Your task to perform on an android device: toggle sleep mode Image 0: 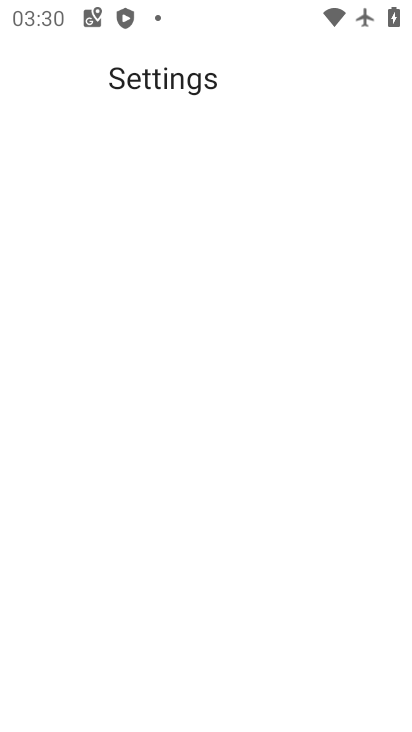
Step 0: drag from (197, 568) to (197, 73)
Your task to perform on an android device: toggle sleep mode Image 1: 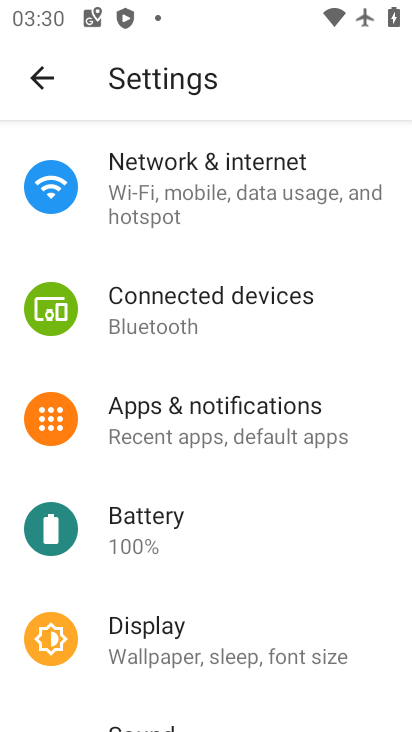
Step 1: press home button
Your task to perform on an android device: toggle sleep mode Image 2: 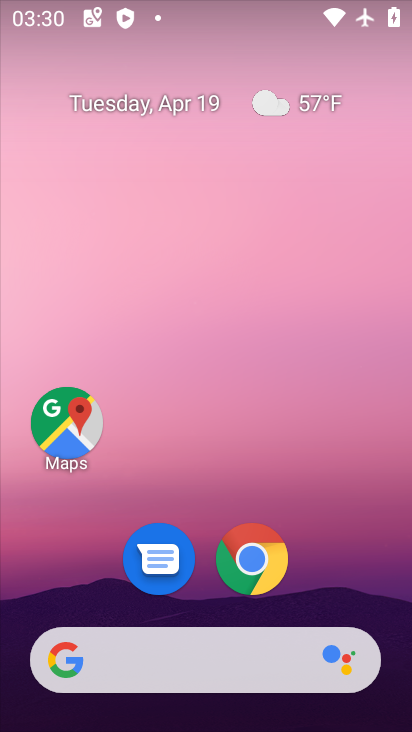
Step 2: drag from (213, 598) to (209, 55)
Your task to perform on an android device: toggle sleep mode Image 3: 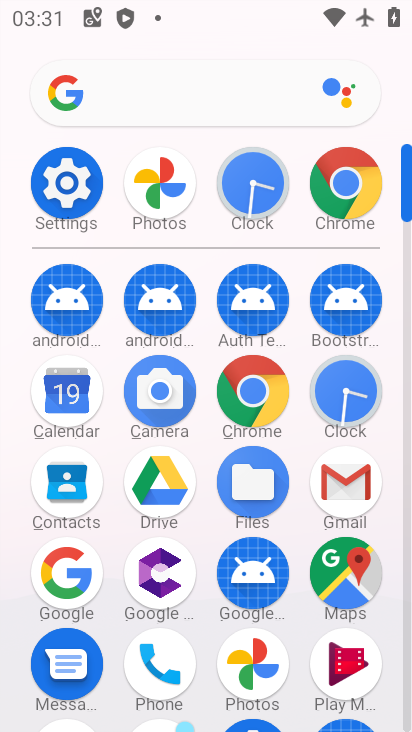
Step 3: click (66, 179)
Your task to perform on an android device: toggle sleep mode Image 4: 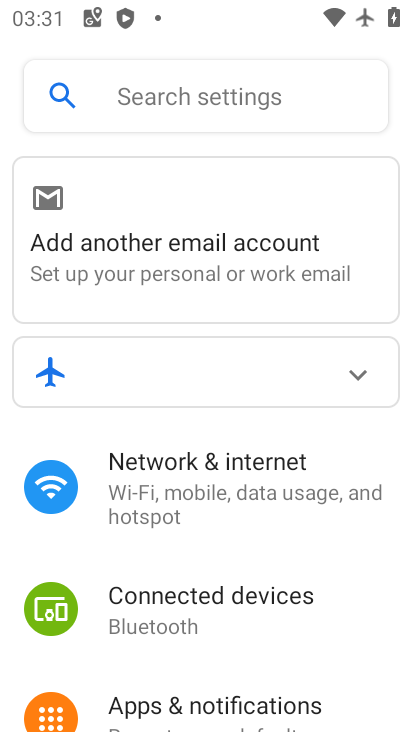
Step 4: drag from (186, 651) to (220, 127)
Your task to perform on an android device: toggle sleep mode Image 5: 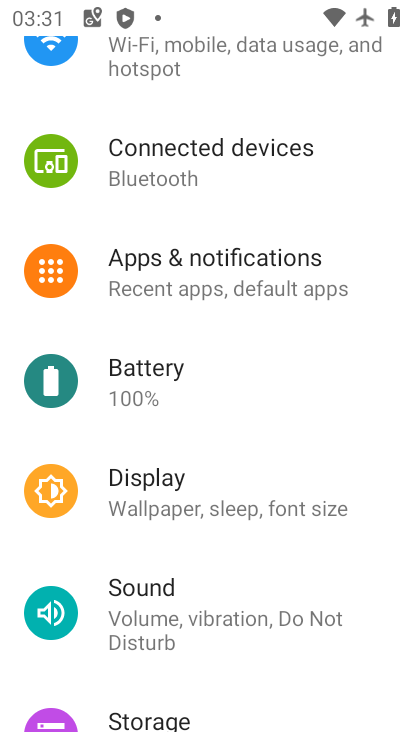
Step 5: click (192, 486)
Your task to perform on an android device: toggle sleep mode Image 6: 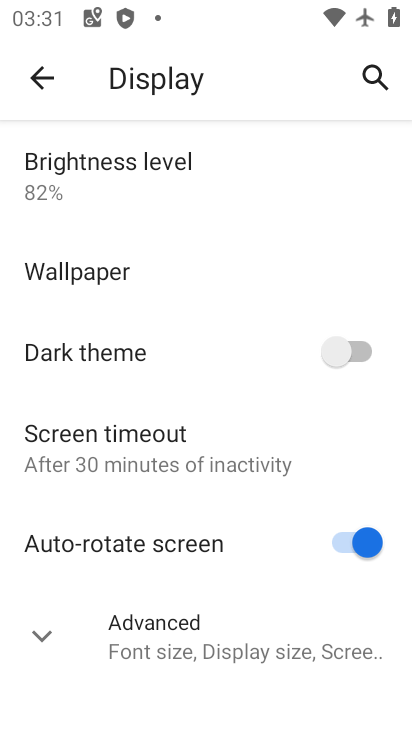
Step 6: click (37, 625)
Your task to perform on an android device: toggle sleep mode Image 7: 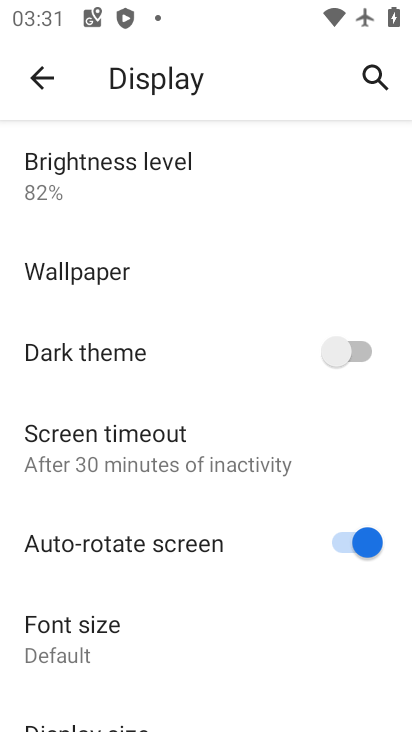
Step 7: task complete